Your task to perform on an android device: turn on data saver in the chrome app Image 0: 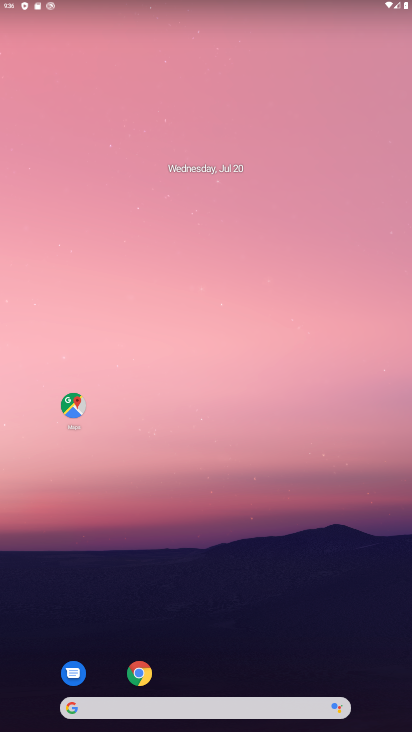
Step 0: drag from (232, 674) to (247, 191)
Your task to perform on an android device: turn on data saver in the chrome app Image 1: 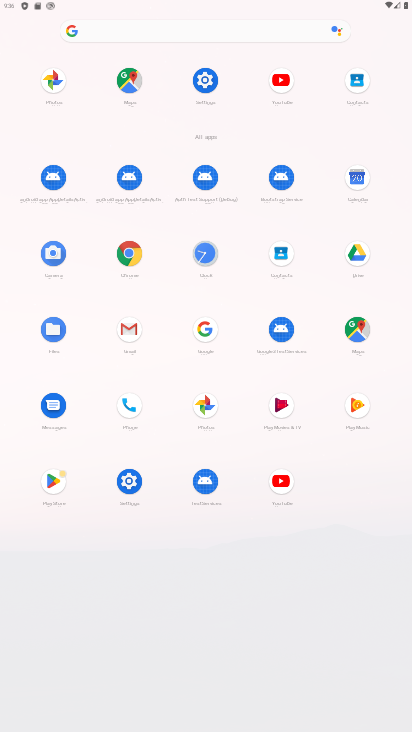
Step 1: click (128, 255)
Your task to perform on an android device: turn on data saver in the chrome app Image 2: 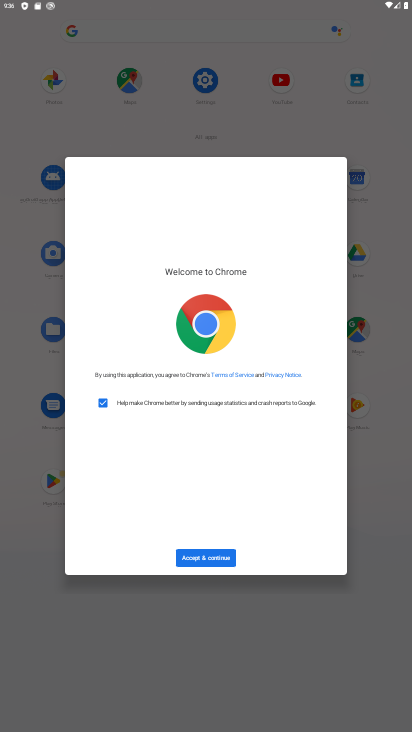
Step 2: click (194, 554)
Your task to perform on an android device: turn on data saver in the chrome app Image 3: 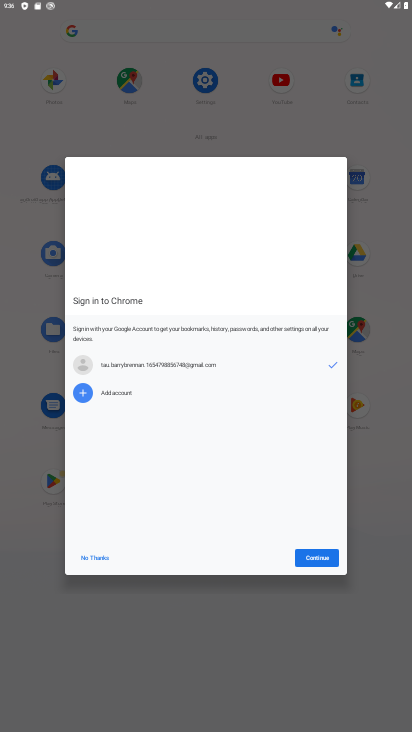
Step 3: click (323, 561)
Your task to perform on an android device: turn on data saver in the chrome app Image 4: 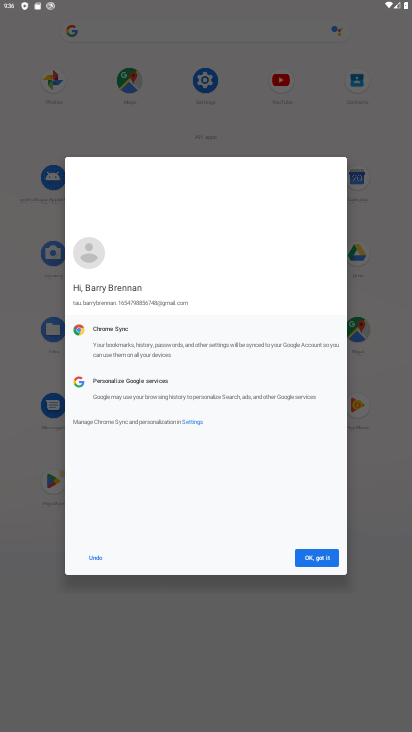
Step 4: click (323, 561)
Your task to perform on an android device: turn on data saver in the chrome app Image 5: 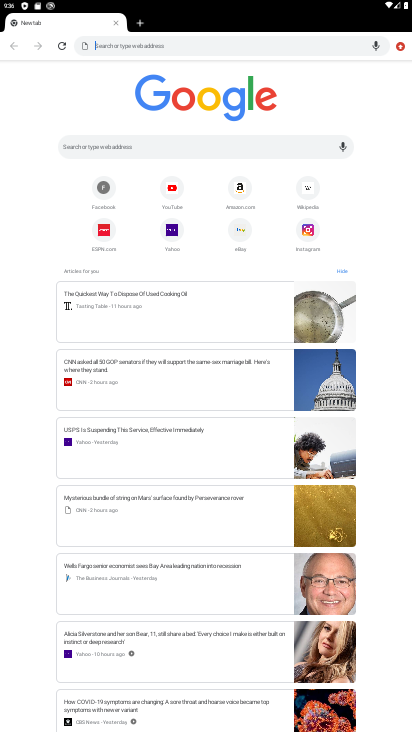
Step 5: click (401, 53)
Your task to perform on an android device: turn on data saver in the chrome app Image 6: 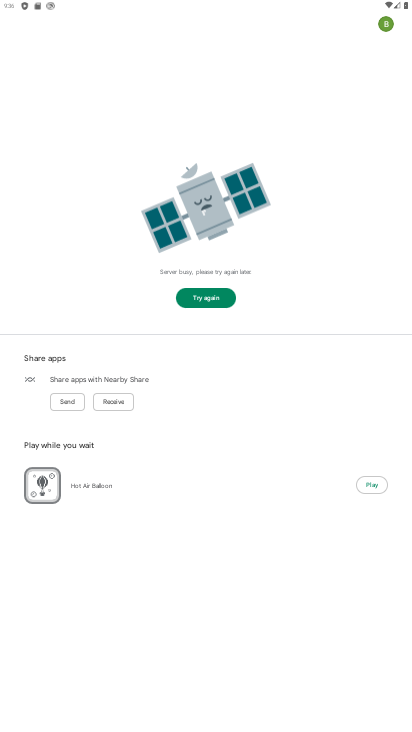
Step 6: press back button
Your task to perform on an android device: turn on data saver in the chrome app Image 7: 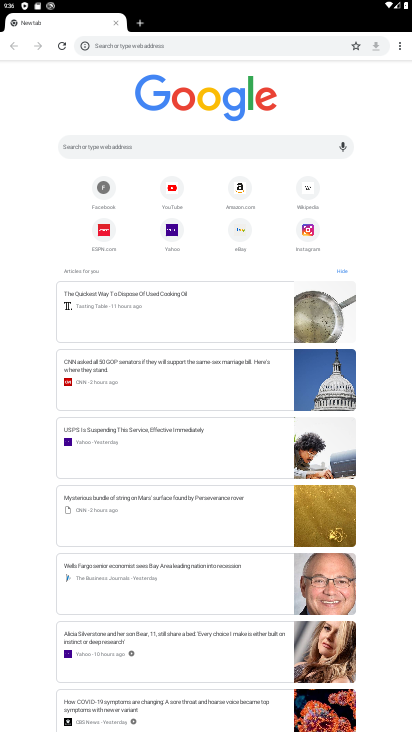
Step 7: click (403, 58)
Your task to perform on an android device: turn on data saver in the chrome app Image 8: 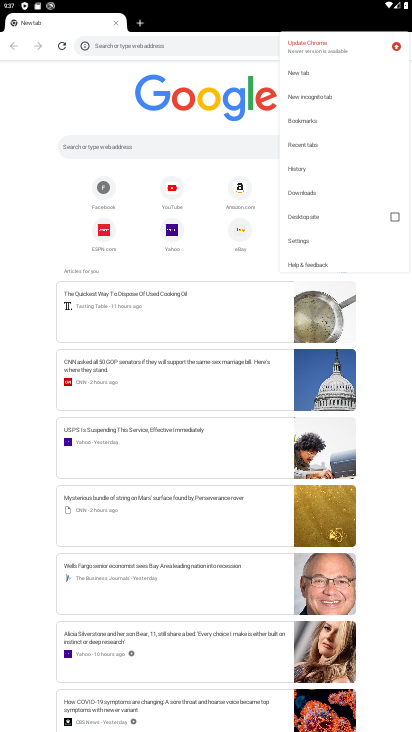
Step 8: click (317, 244)
Your task to perform on an android device: turn on data saver in the chrome app Image 9: 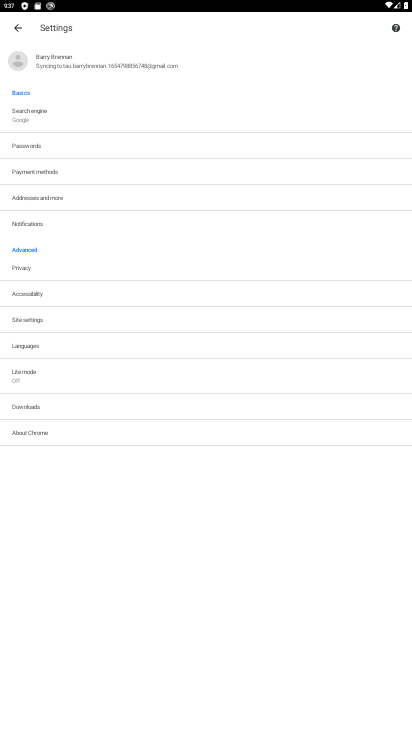
Step 9: click (184, 369)
Your task to perform on an android device: turn on data saver in the chrome app Image 10: 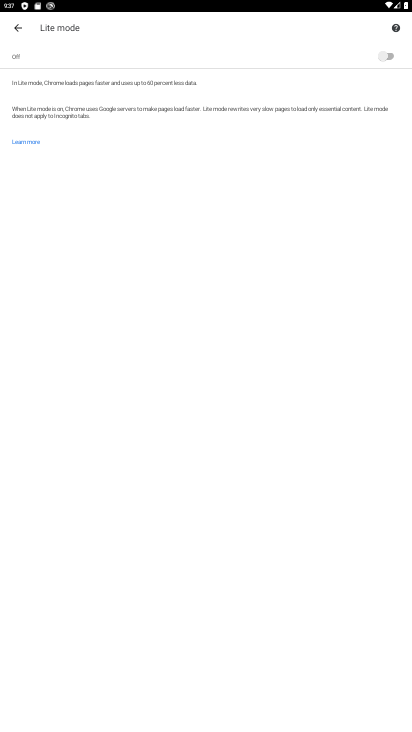
Step 10: click (389, 59)
Your task to perform on an android device: turn on data saver in the chrome app Image 11: 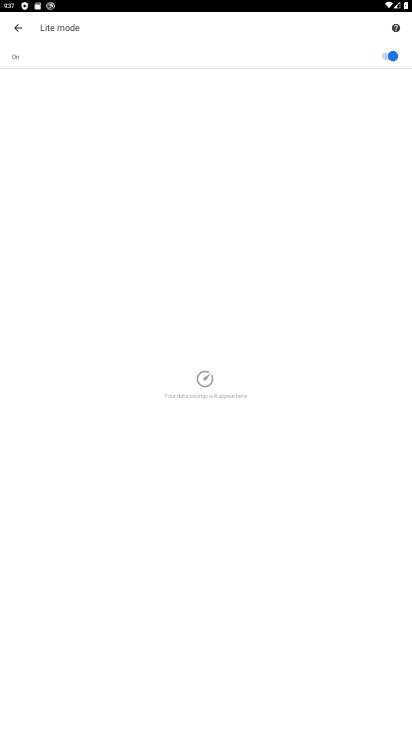
Step 11: task complete